Your task to perform on an android device: What is the recent news? Image 0: 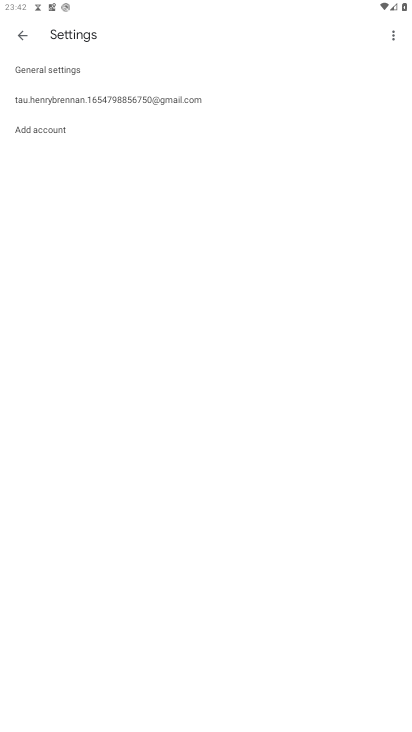
Step 0: press home button
Your task to perform on an android device: What is the recent news? Image 1: 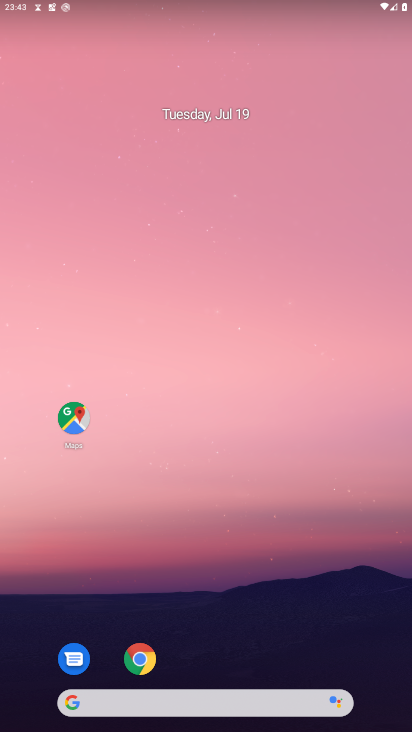
Step 1: click (11, 183)
Your task to perform on an android device: What is the recent news? Image 2: 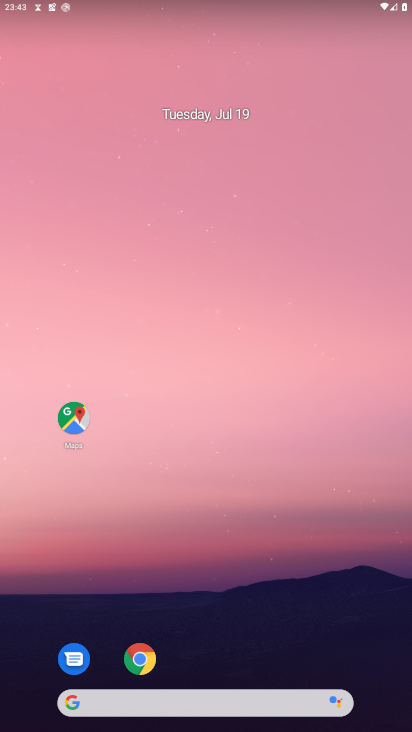
Step 2: task complete